Your task to perform on an android device: turn on the 24-hour format for clock Image 0: 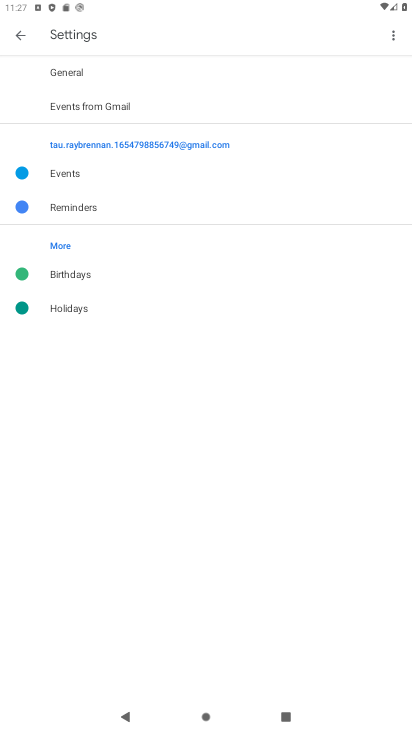
Step 0: press home button
Your task to perform on an android device: turn on the 24-hour format for clock Image 1: 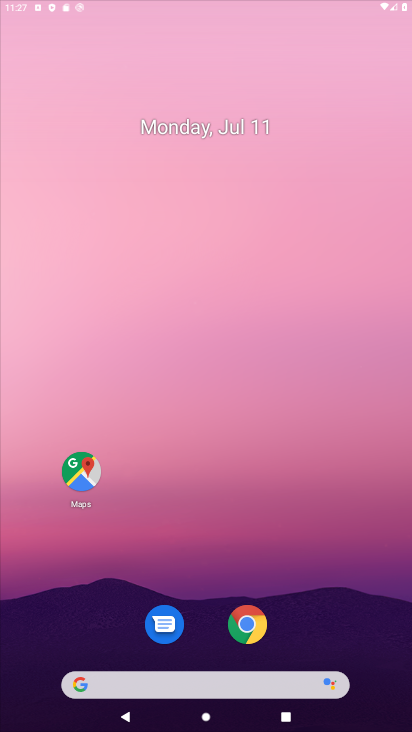
Step 1: drag from (204, 618) to (234, 117)
Your task to perform on an android device: turn on the 24-hour format for clock Image 2: 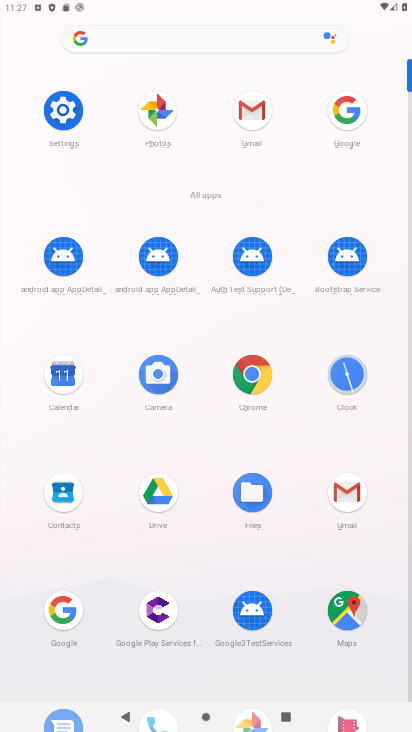
Step 2: click (338, 370)
Your task to perform on an android device: turn on the 24-hour format for clock Image 3: 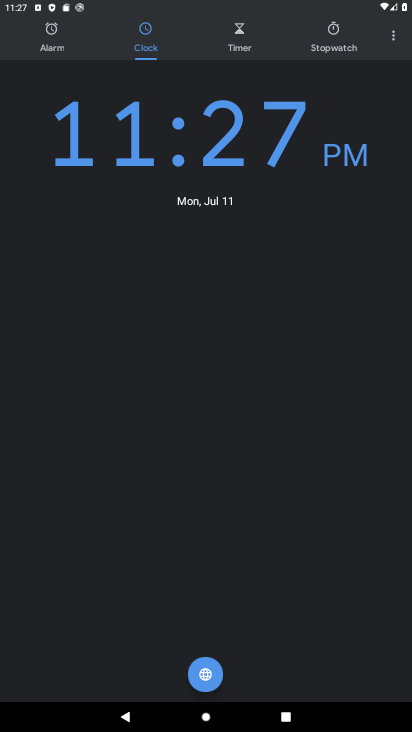
Step 3: click (392, 30)
Your task to perform on an android device: turn on the 24-hour format for clock Image 4: 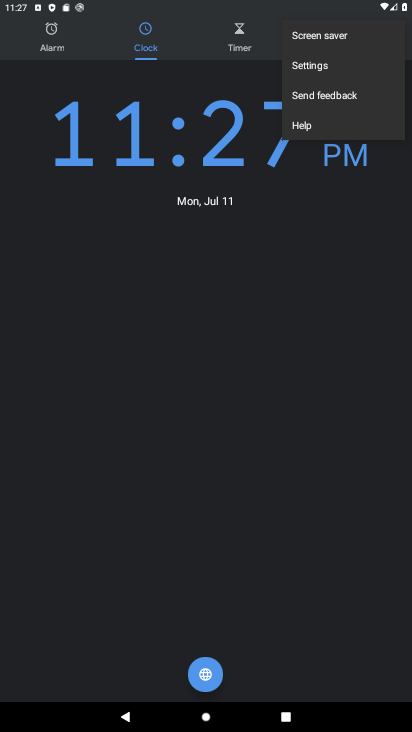
Step 4: click (335, 73)
Your task to perform on an android device: turn on the 24-hour format for clock Image 5: 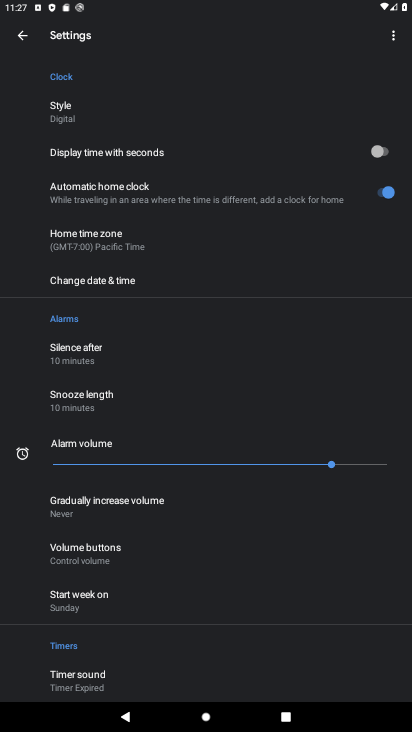
Step 5: click (144, 286)
Your task to perform on an android device: turn on the 24-hour format for clock Image 6: 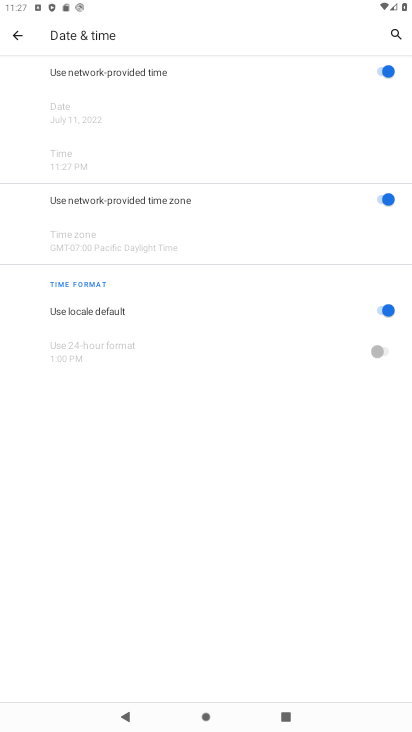
Step 6: click (384, 342)
Your task to perform on an android device: turn on the 24-hour format for clock Image 7: 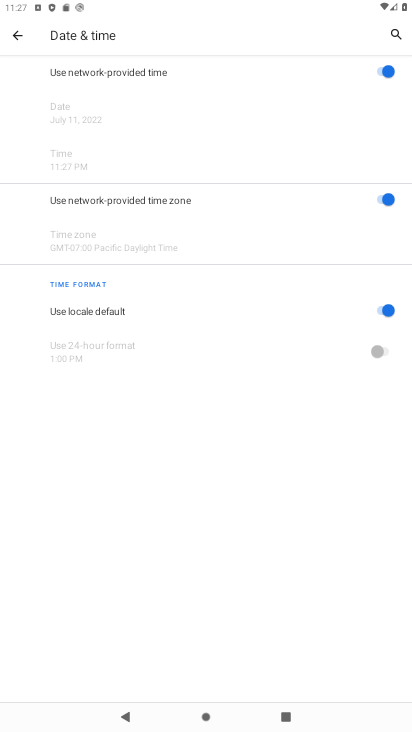
Step 7: click (377, 307)
Your task to perform on an android device: turn on the 24-hour format for clock Image 8: 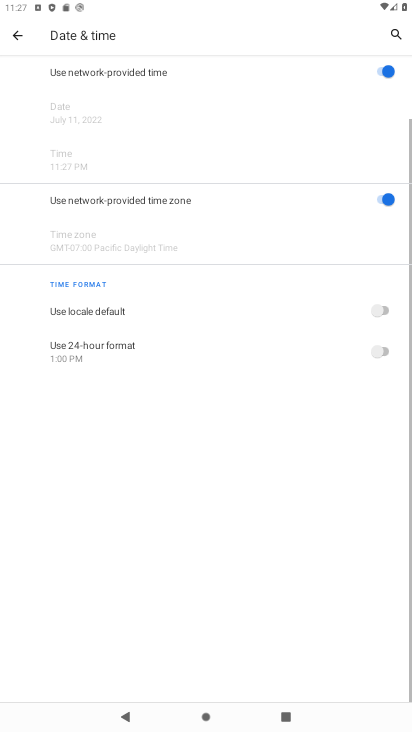
Step 8: click (388, 354)
Your task to perform on an android device: turn on the 24-hour format for clock Image 9: 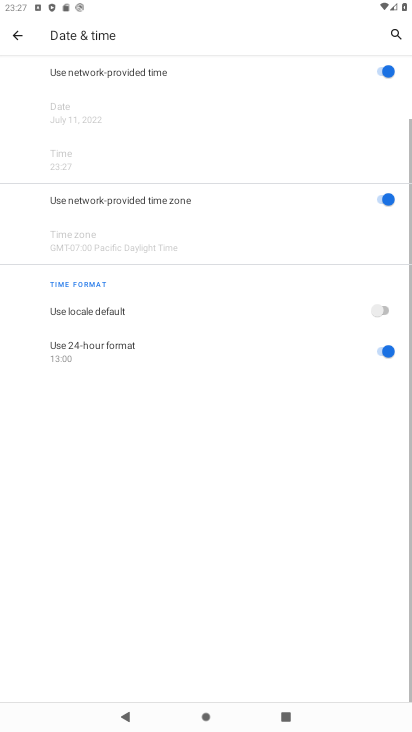
Step 9: task complete